Your task to perform on an android device: What's the weather today? Image 0: 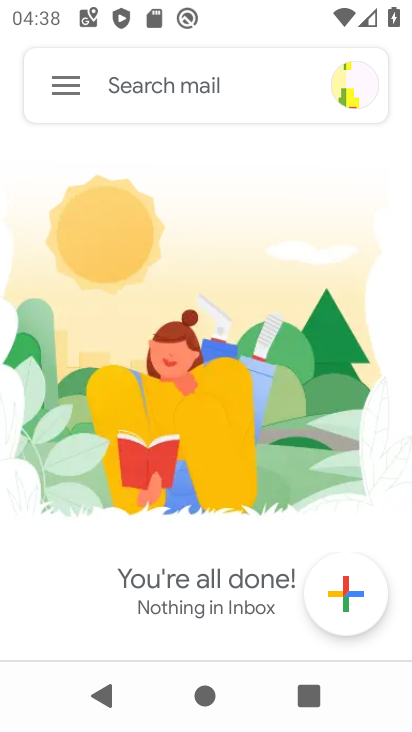
Step 0: press home button
Your task to perform on an android device: What's the weather today? Image 1: 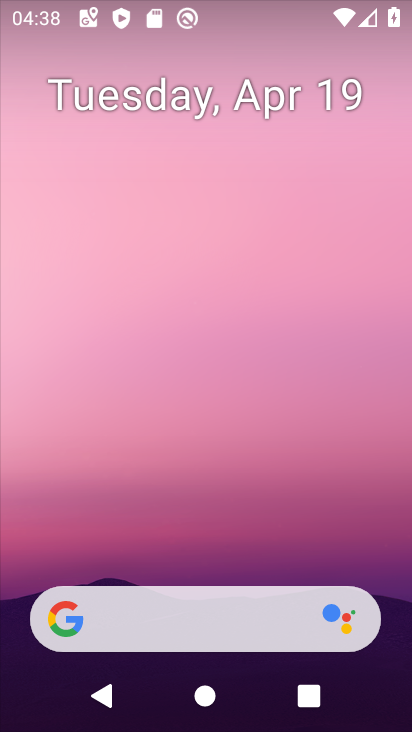
Step 1: drag from (192, 478) to (222, 140)
Your task to perform on an android device: What's the weather today? Image 2: 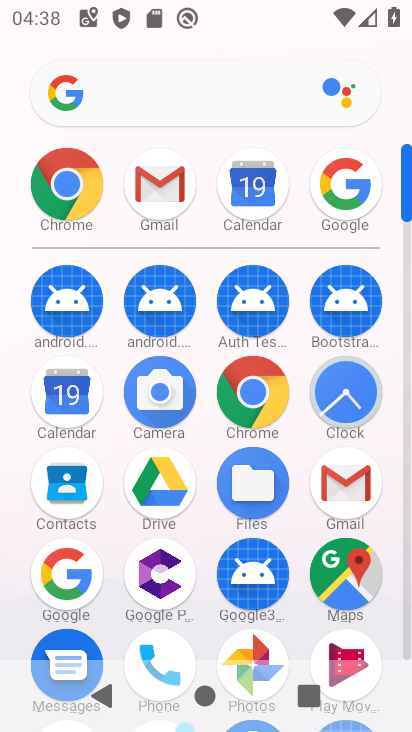
Step 2: click (88, 592)
Your task to perform on an android device: What's the weather today? Image 3: 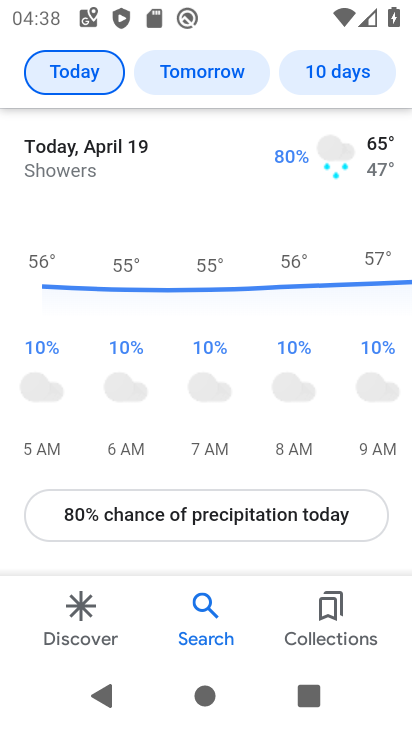
Step 3: click (70, 78)
Your task to perform on an android device: What's the weather today? Image 4: 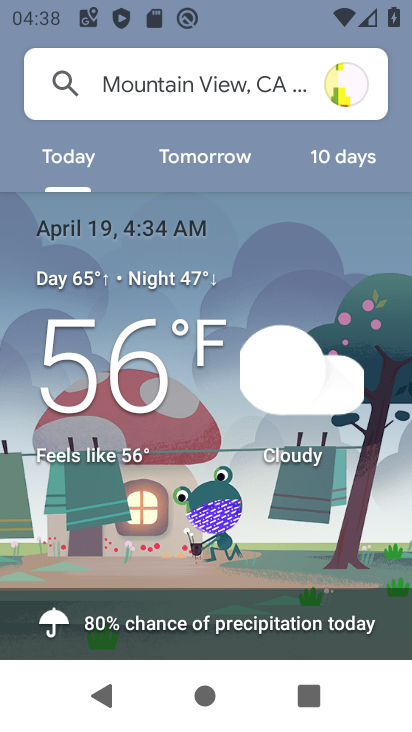
Step 4: task complete